Your task to perform on an android device: toggle show notifications on the lock screen Image 0: 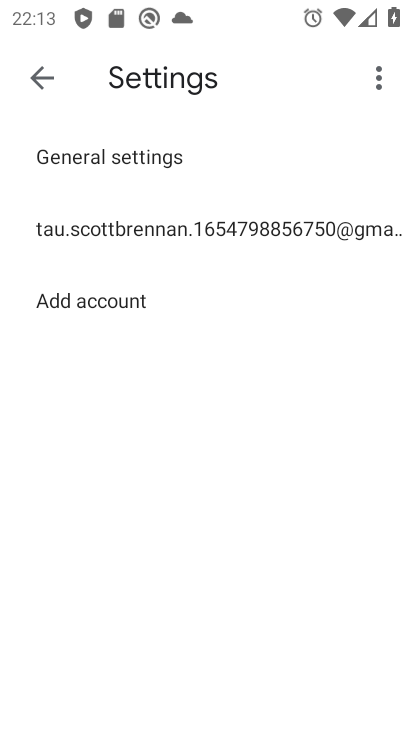
Step 0: press home button
Your task to perform on an android device: toggle show notifications on the lock screen Image 1: 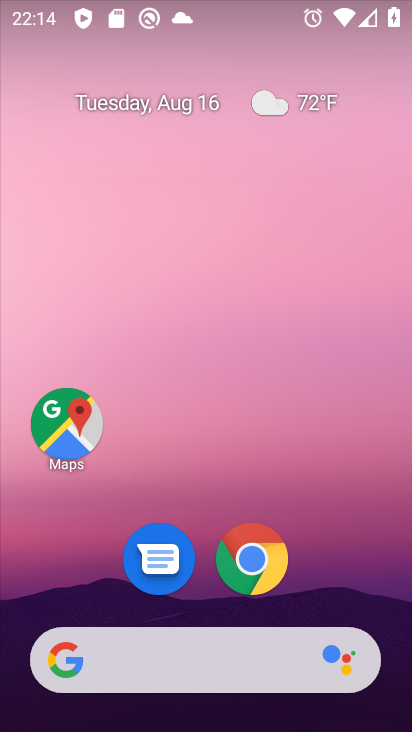
Step 1: drag from (179, 661) to (184, 141)
Your task to perform on an android device: toggle show notifications on the lock screen Image 2: 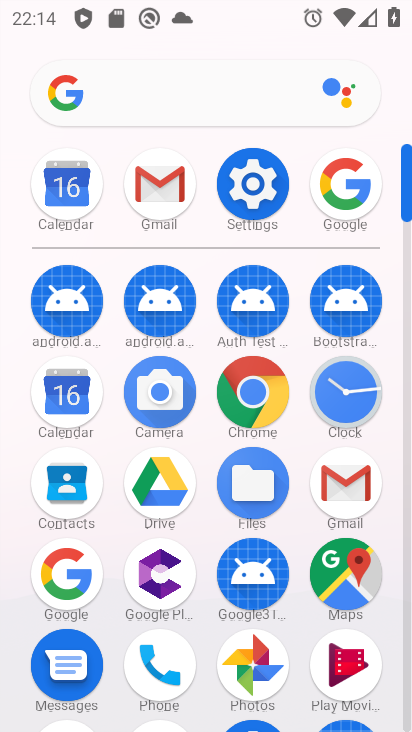
Step 2: click (254, 185)
Your task to perform on an android device: toggle show notifications on the lock screen Image 3: 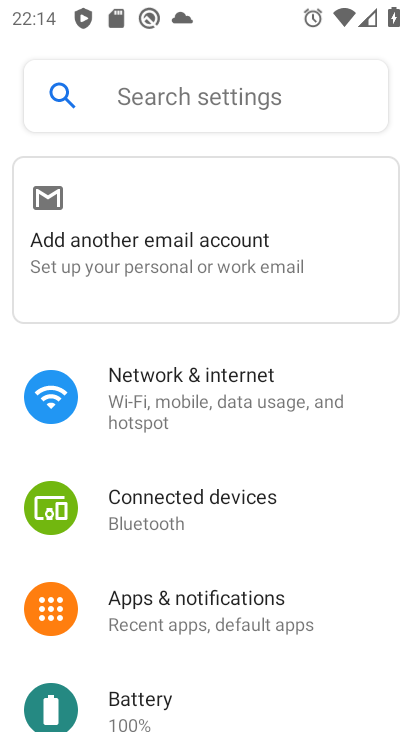
Step 3: click (187, 603)
Your task to perform on an android device: toggle show notifications on the lock screen Image 4: 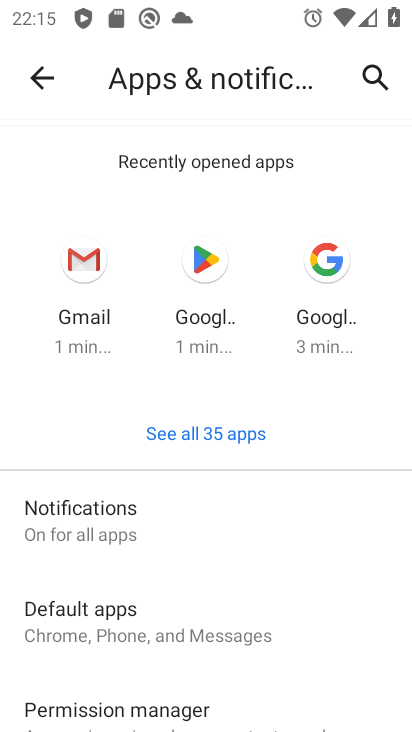
Step 4: click (91, 524)
Your task to perform on an android device: toggle show notifications on the lock screen Image 5: 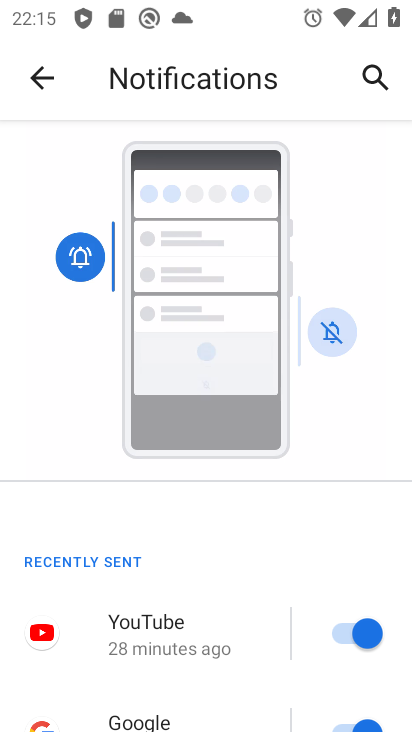
Step 5: drag from (126, 585) to (202, 328)
Your task to perform on an android device: toggle show notifications on the lock screen Image 6: 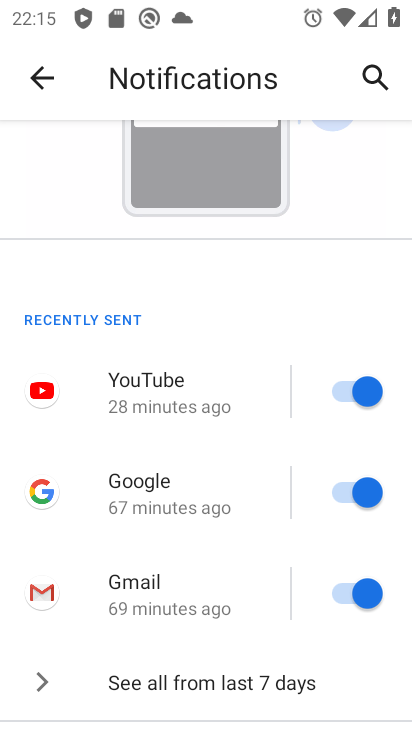
Step 6: drag from (143, 653) to (235, 491)
Your task to perform on an android device: toggle show notifications on the lock screen Image 7: 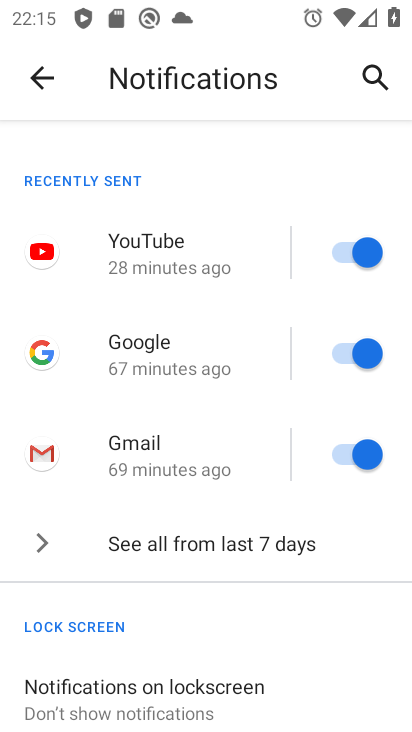
Step 7: drag from (150, 629) to (248, 448)
Your task to perform on an android device: toggle show notifications on the lock screen Image 8: 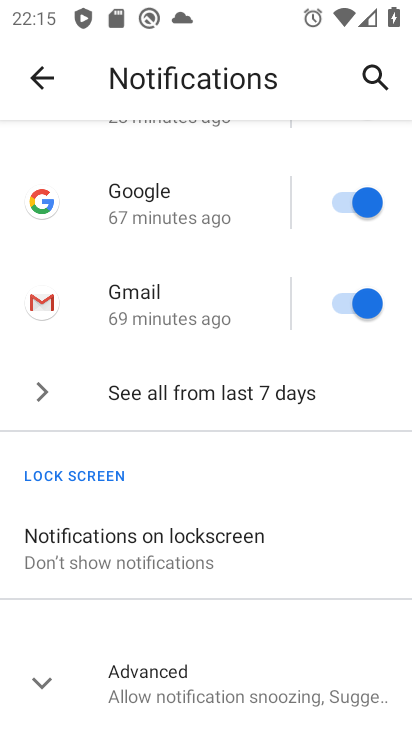
Step 8: click (220, 562)
Your task to perform on an android device: toggle show notifications on the lock screen Image 9: 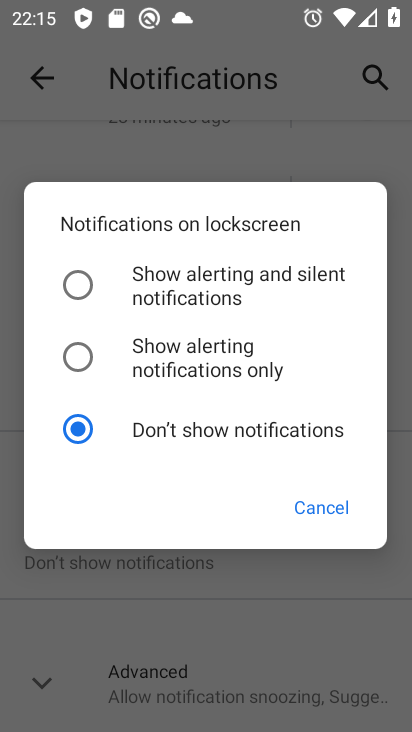
Step 9: click (87, 277)
Your task to perform on an android device: toggle show notifications on the lock screen Image 10: 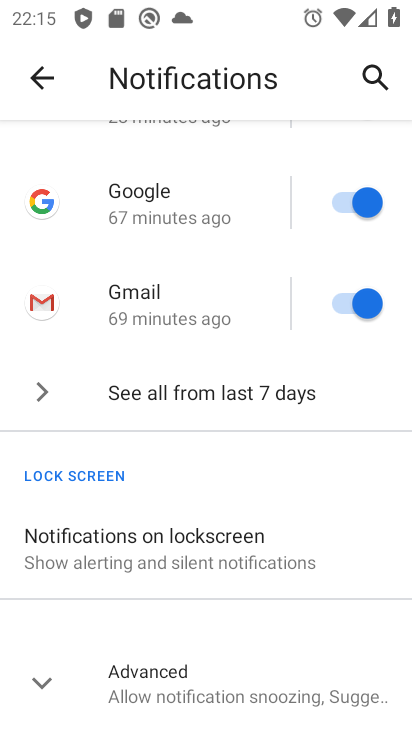
Step 10: task complete